Your task to perform on an android device: change your default location settings in chrome Image 0: 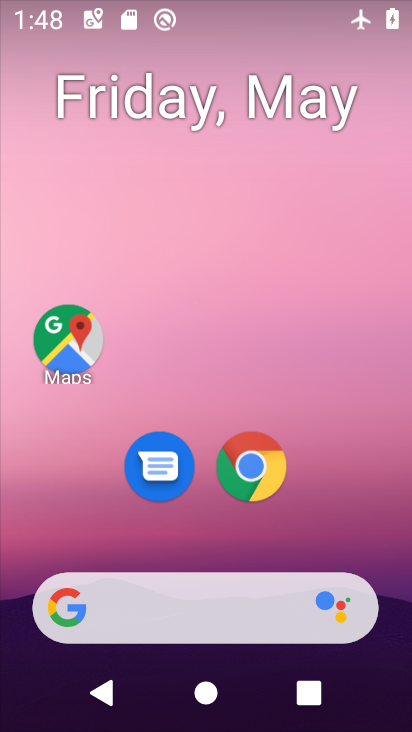
Step 0: drag from (345, 528) to (390, 0)
Your task to perform on an android device: change your default location settings in chrome Image 1: 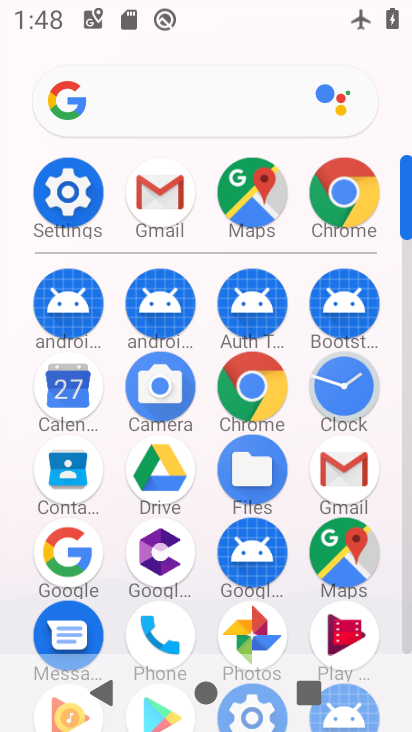
Step 1: click (340, 196)
Your task to perform on an android device: change your default location settings in chrome Image 2: 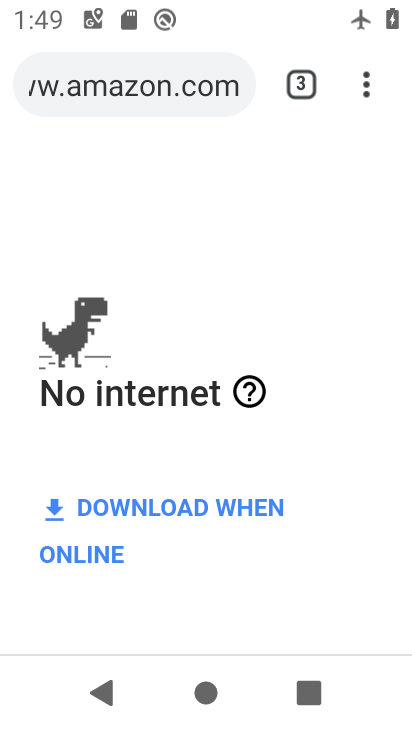
Step 2: drag from (366, 81) to (189, 511)
Your task to perform on an android device: change your default location settings in chrome Image 3: 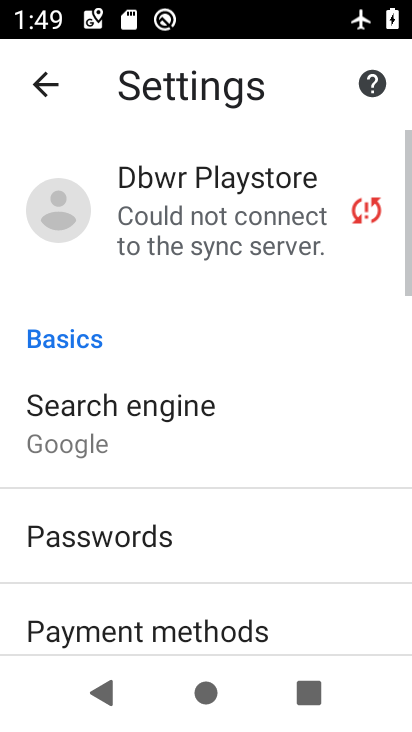
Step 3: drag from (171, 585) to (173, 211)
Your task to perform on an android device: change your default location settings in chrome Image 4: 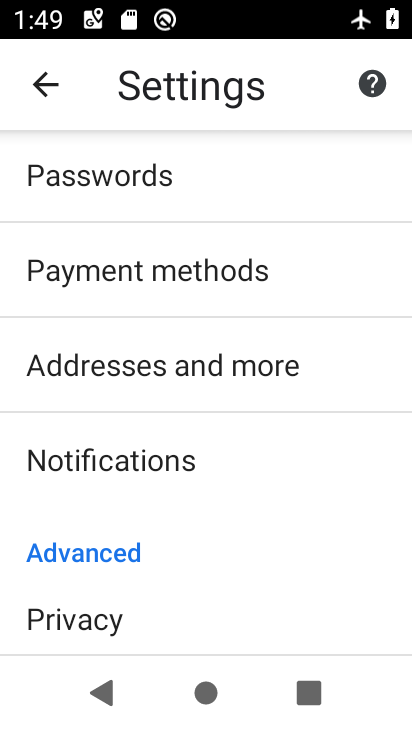
Step 4: drag from (188, 599) to (200, 183)
Your task to perform on an android device: change your default location settings in chrome Image 5: 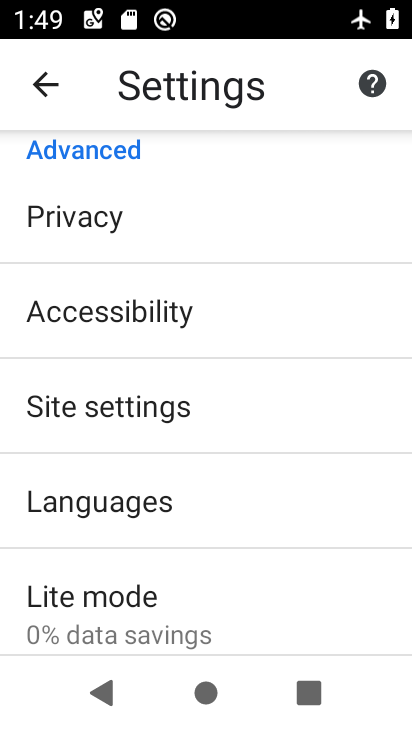
Step 5: drag from (206, 593) to (241, 155)
Your task to perform on an android device: change your default location settings in chrome Image 6: 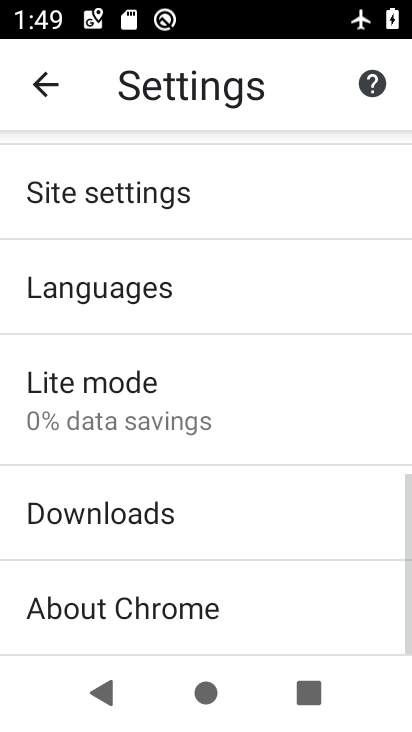
Step 6: drag from (184, 540) to (212, 107)
Your task to perform on an android device: change your default location settings in chrome Image 7: 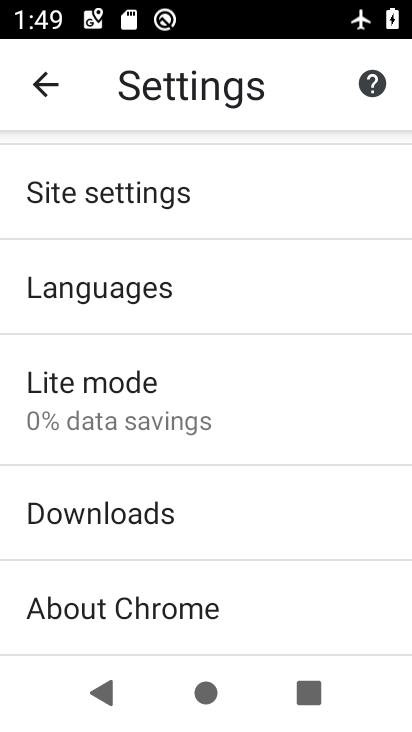
Step 7: drag from (187, 273) to (210, 611)
Your task to perform on an android device: change your default location settings in chrome Image 8: 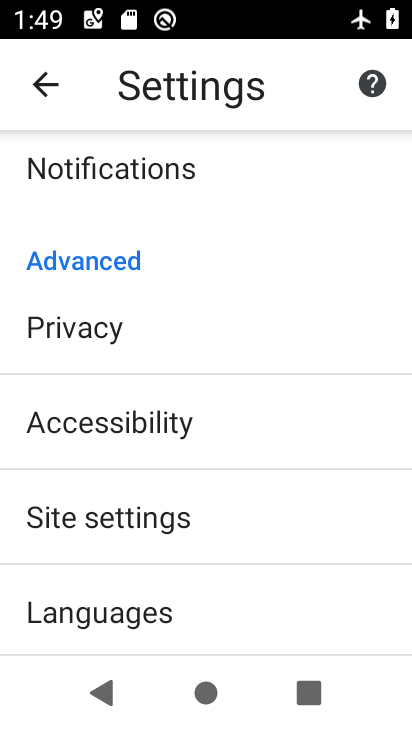
Step 8: drag from (224, 208) to (234, 571)
Your task to perform on an android device: change your default location settings in chrome Image 9: 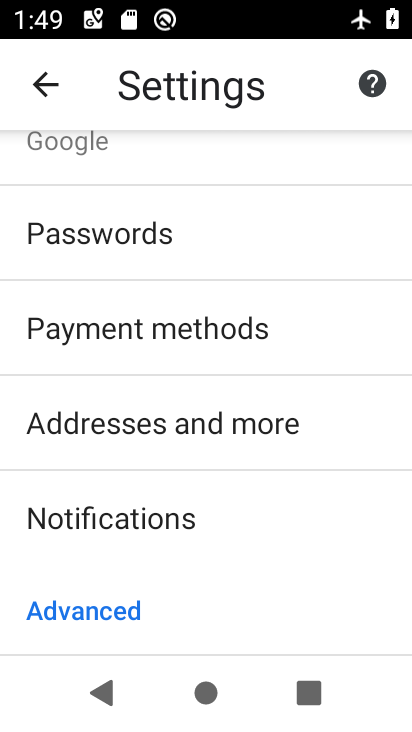
Step 9: drag from (285, 214) to (280, 622)
Your task to perform on an android device: change your default location settings in chrome Image 10: 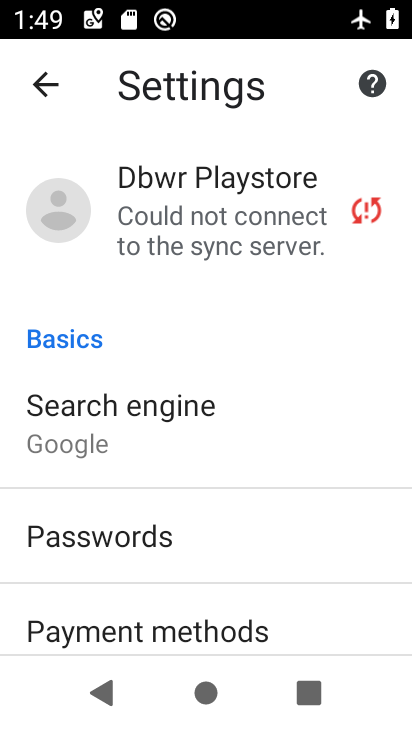
Step 10: drag from (275, 626) to (238, 271)
Your task to perform on an android device: change your default location settings in chrome Image 11: 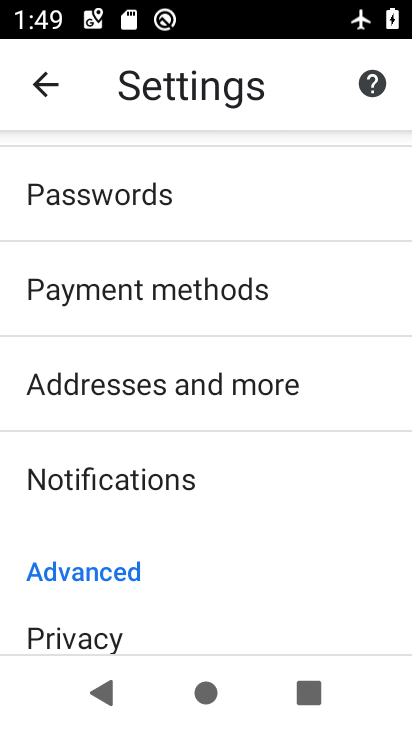
Step 11: drag from (197, 561) to (245, 197)
Your task to perform on an android device: change your default location settings in chrome Image 12: 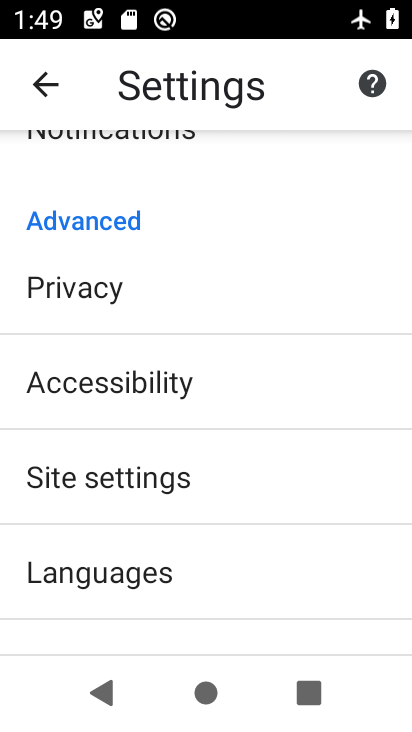
Step 12: drag from (201, 552) to (219, 118)
Your task to perform on an android device: change your default location settings in chrome Image 13: 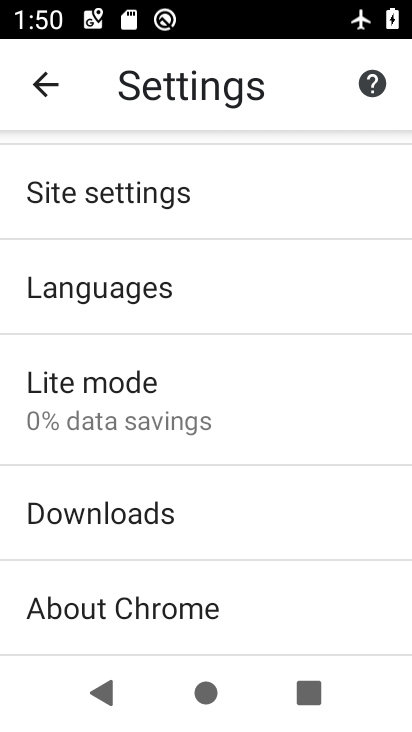
Step 13: drag from (239, 604) to (252, 175)
Your task to perform on an android device: change your default location settings in chrome Image 14: 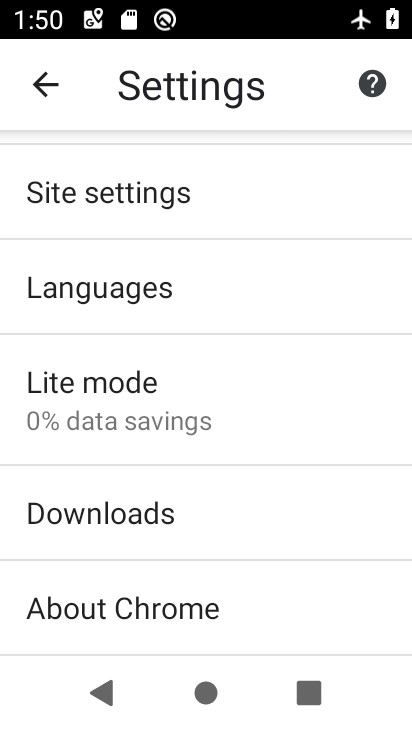
Step 14: drag from (197, 253) to (203, 618)
Your task to perform on an android device: change your default location settings in chrome Image 15: 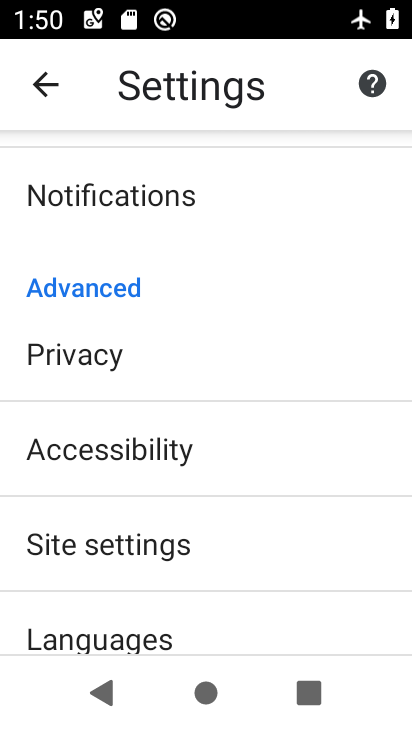
Step 15: drag from (179, 288) to (144, 623)
Your task to perform on an android device: change your default location settings in chrome Image 16: 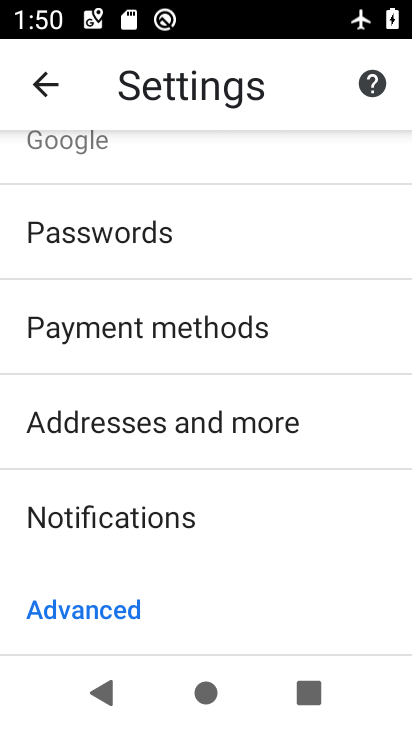
Step 16: drag from (183, 206) to (169, 704)
Your task to perform on an android device: change your default location settings in chrome Image 17: 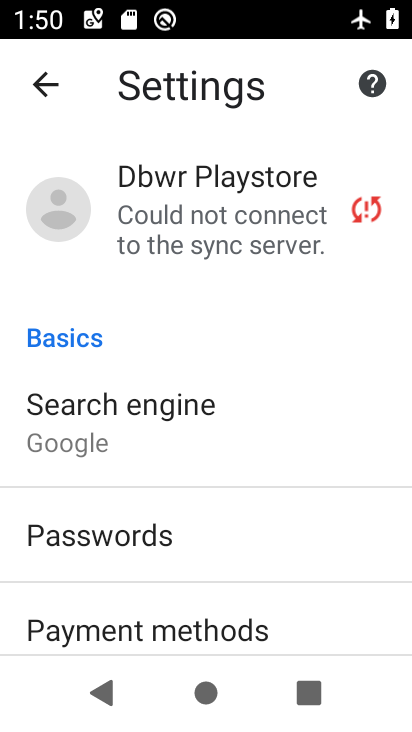
Step 17: drag from (185, 570) to (144, 217)
Your task to perform on an android device: change your default location settings in chrome Image 18: 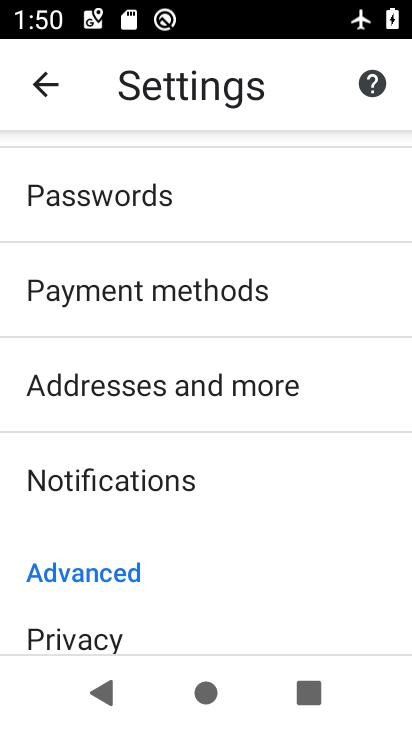
Step 18: drag from (194, 622) to (248, 170)
Your task to perform on an android device: change your default location settings in chrome Image 19: 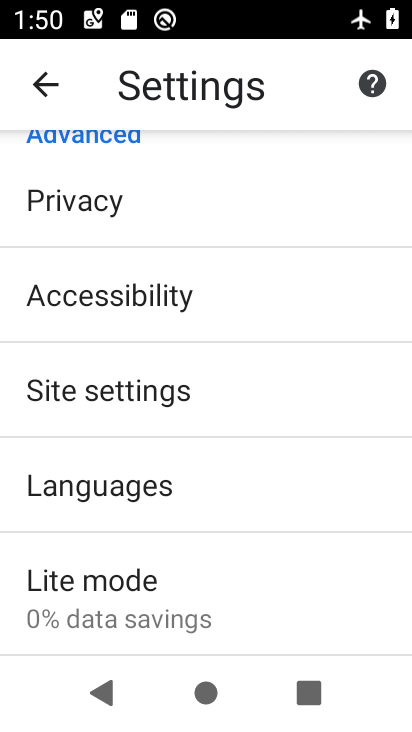
Step 19: drag from (217, 595) to (258, 173)
Your task to perform on an android device: change your default location settings in chrome Image 20: 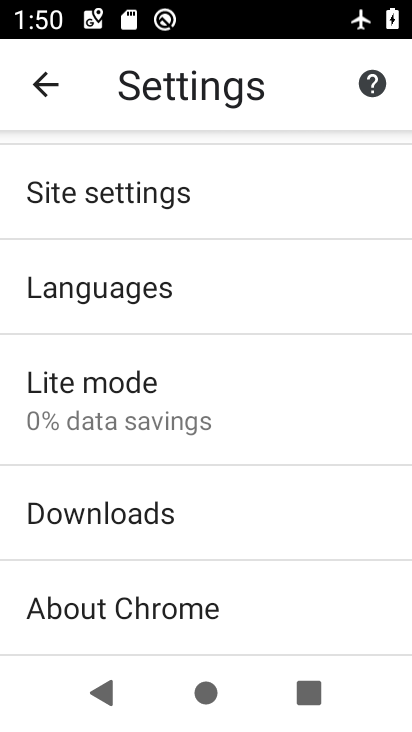
Step 20: drag from (190, 306) to (197, 585)
Your task to perform on an android device: change your default location settings in chrome Image 21: 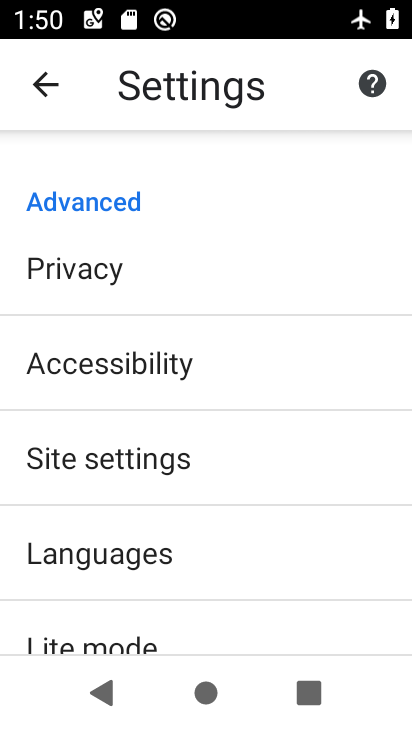
Step 21: drag from (198, 578) to (227, 234)
Your task to perform on an android device: change your default location settings in chrome Image 22: 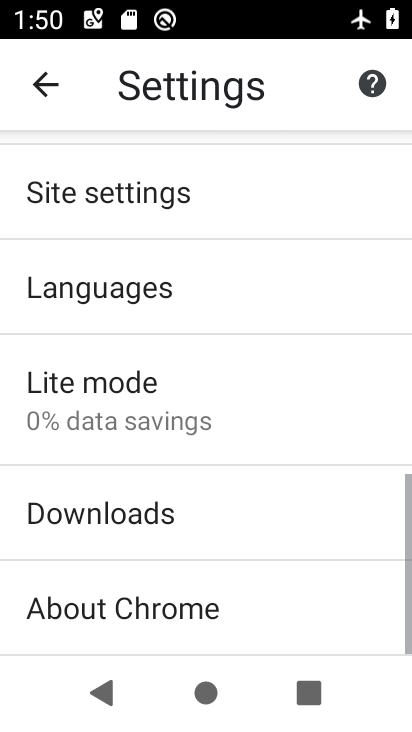
Step 22: drag from (216, 600) to (255, 146)
Your task to perform on an android device: change your default location settings in chrome Image 23: 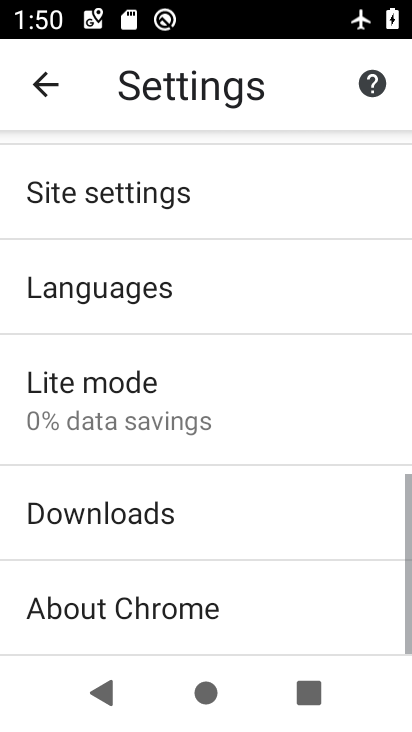
Step 23: drag from (265, 225) to (292, 597)
Your task to perform on an android device: change your default location settings in chrome Image 24: 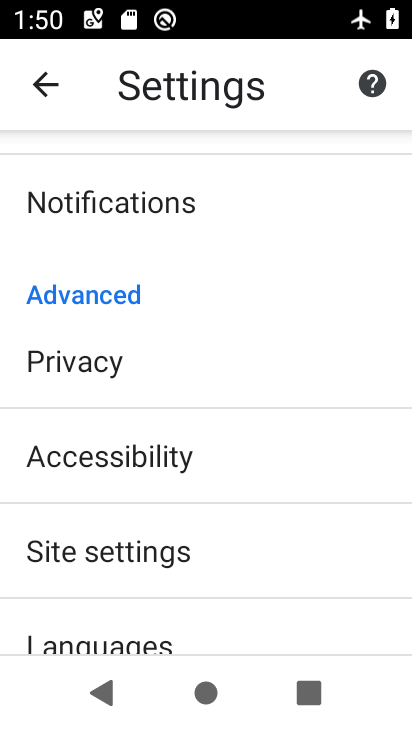
Step 24: drag from (294, 223) to (291, 643)
Your task to perform on an android device: change your default location settings in chrome Image 25: 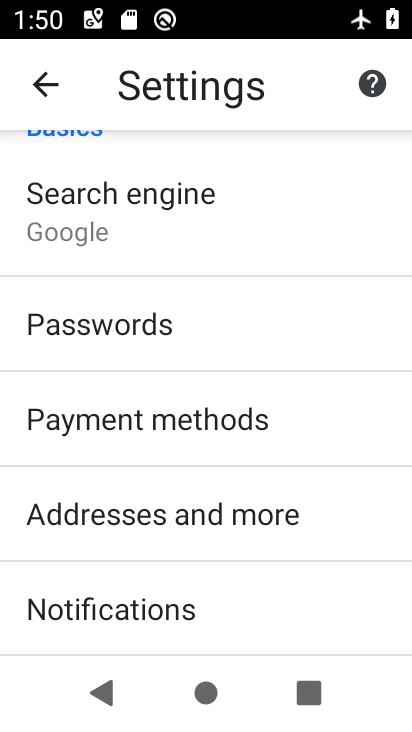
Step 25: drag from (276, 108) to (269, 594)
Your task to perform on an android device: change your default location settings in chrome Image 26: 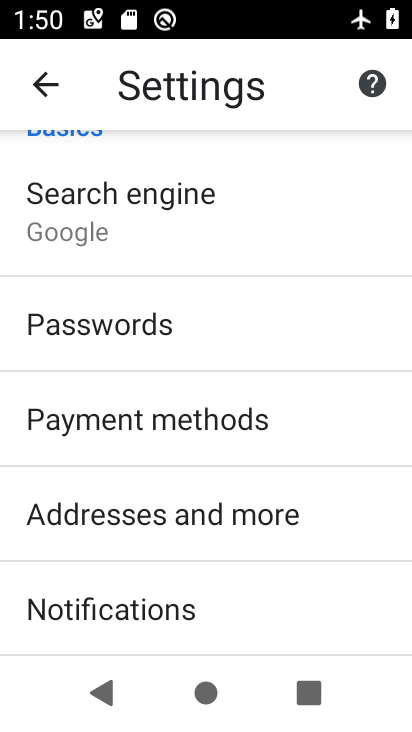
Step 26: drag from (273, 327) to (297, 630)
Your task to perform on an android device: change your default location settings in chrome Image 27: 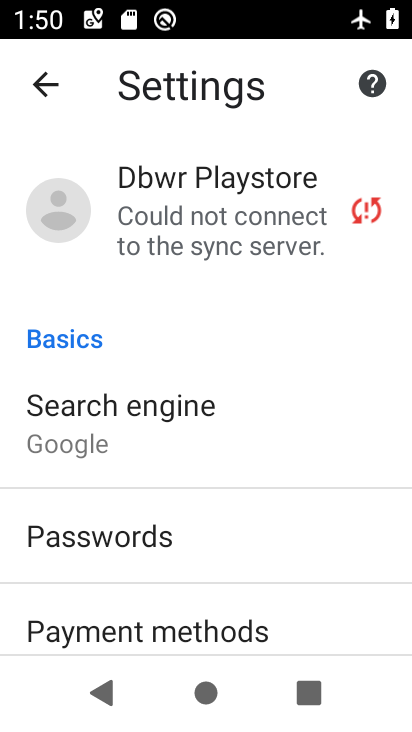
Step 27: drag from (307, 585) to (297, 135)
Your task to perform on an android device: change your default location settings in chrome Image 28: 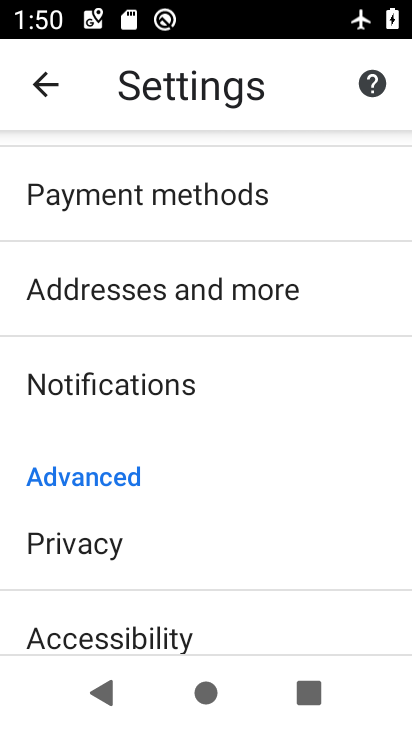
Step 28: drag from (223, 543) to (274, 138)
Your task to perform on an android device: change your default location settings in chrome Image 29: 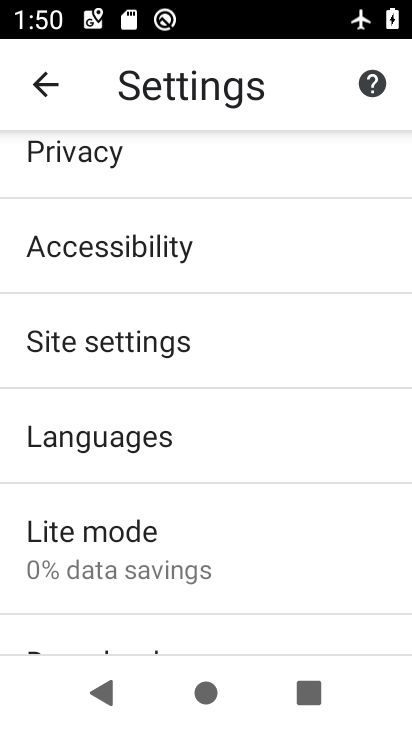
Step 29: drag from (248, 560) to (261, 97)
Your task to perform on an android device: change your default location settings in chrome Image 30: 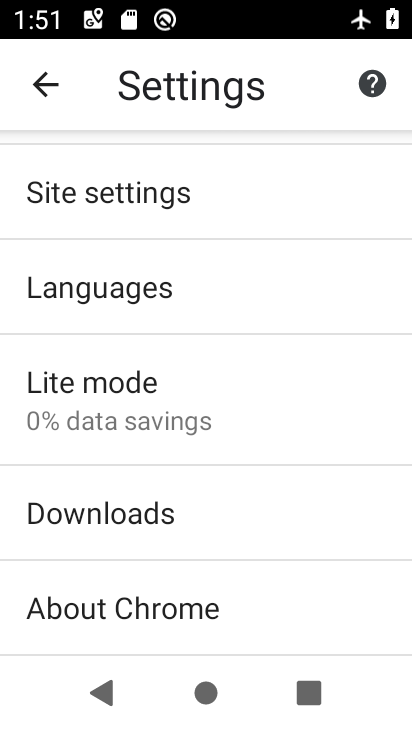
Step 30: drag from (217, 647) to (287, 95)
Your task to perform on an android device: change your default location settings in chrome Image 31: 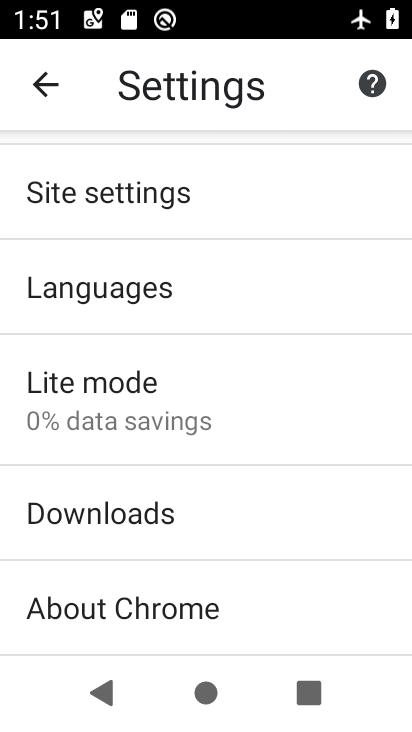
Step 31: drag from (183, 551) to (179, 150)
Your task to perform on an android device: change your default location settings in chrome Image 32: 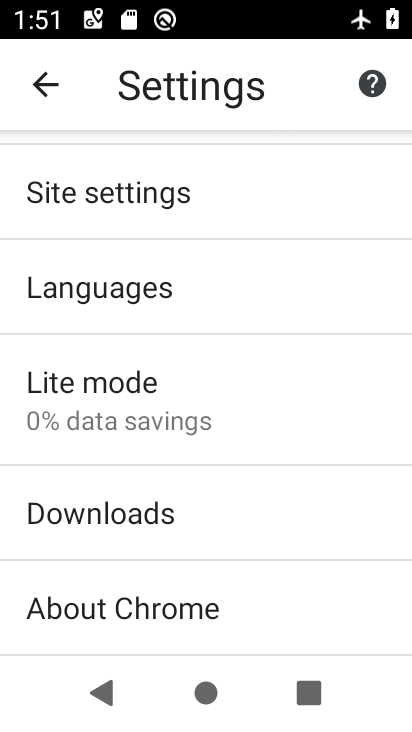
Step 32: drag from (247, 609) to (245, 212)
Your task to perform on an android device: change your default location settings in chrome Image 33: 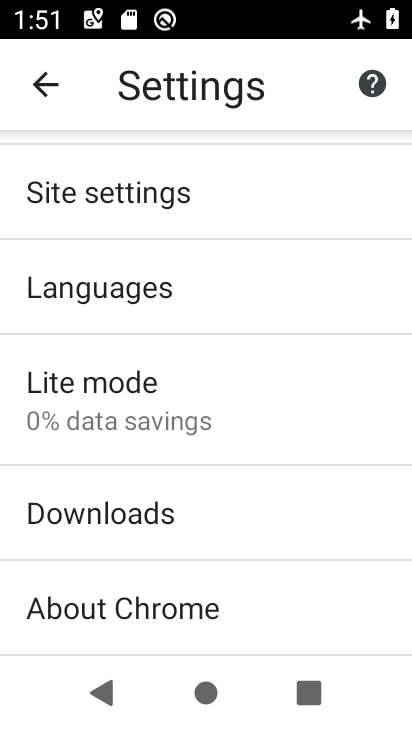
Step 33: drag from (192, 282) to (211, 620)
Your task to perform on an android device: change your default location settings in chrome Image 34: 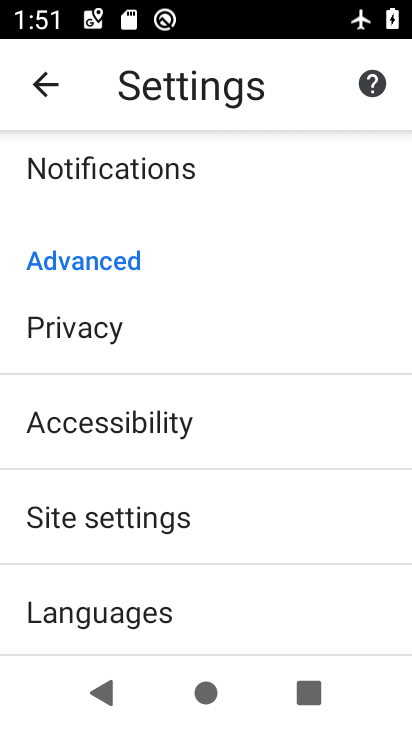
Step 34: drag from (223, 288) to (226, 669)
Your task to perform on an android device: change your default location settings in chrome Image 35: 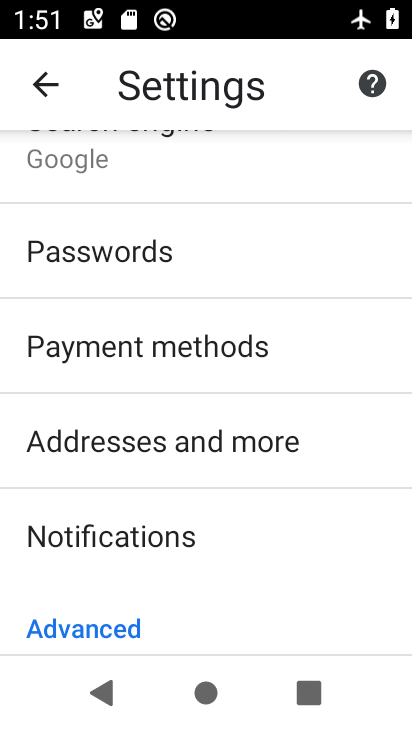
Step 35: drag from (264, 343) to (272, 611)
Your task to perform on an android device: change your default location settings in chrome Image 36: 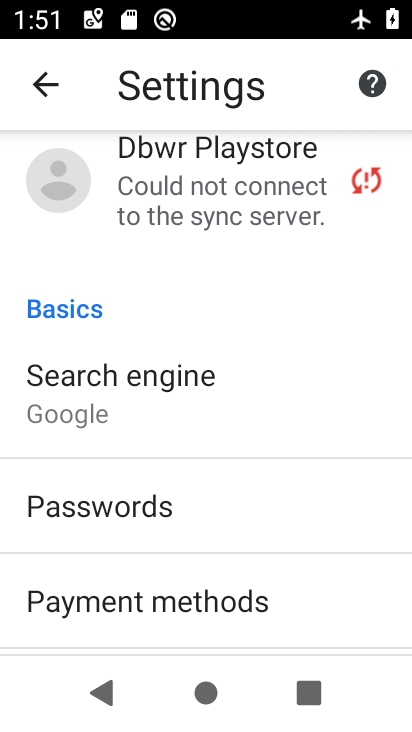
Step 36: drag from (276, 597) to (260, 253)
Your task to perform on an android device: change your default location settings in chrome Image 37: 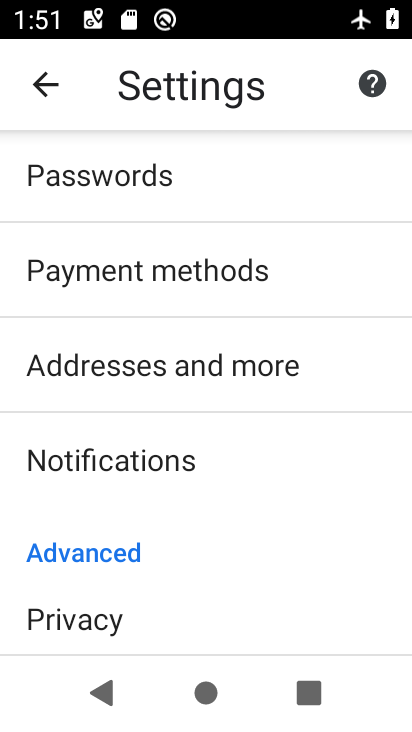
Step 37: drag from (293, 582) to (297, 222)
Your task to perform on an android device: change your default location settings in chrome Image 38: 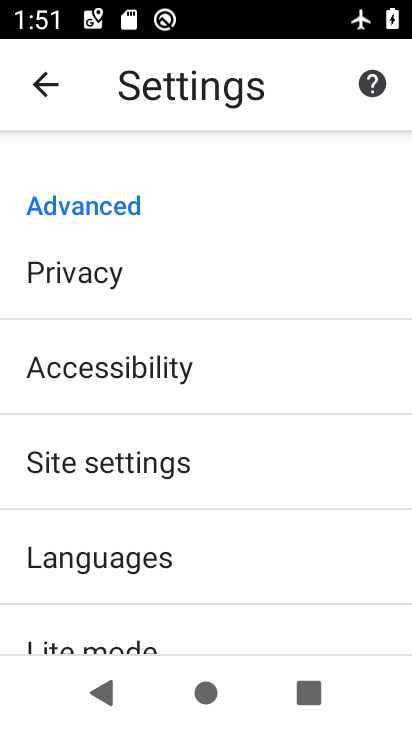
Step 38: drag from (296, 547) to (277, 207)
Your task to perform on an android device: change your default location settings in chrome Image 39: 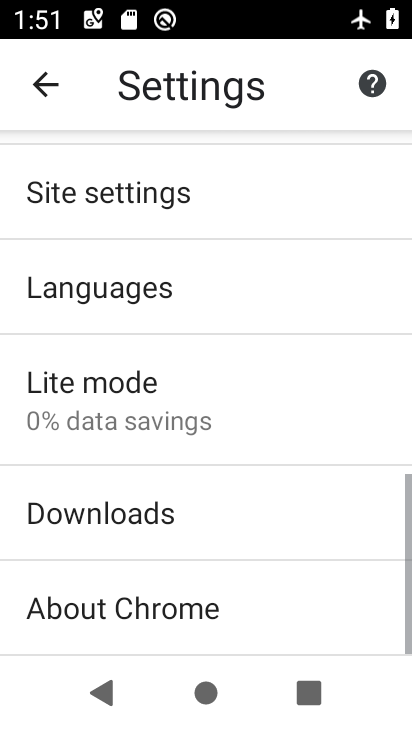
Step 39: drag from (315, 595) to (314, 228)
Your task to perform on an android device: change your default location settings in chrome Image 40: 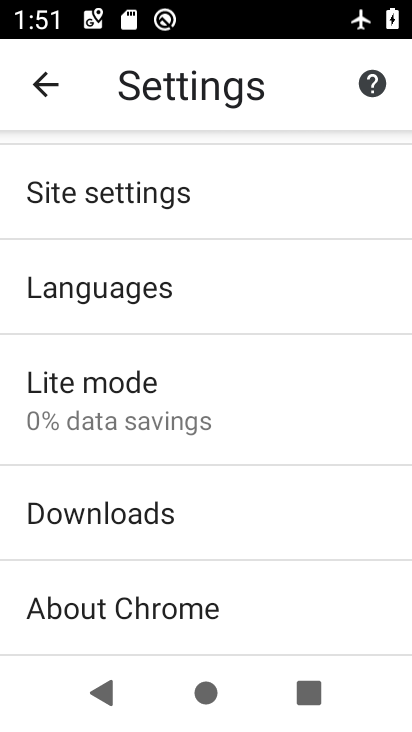
Step 40: drag from (274, 607) to (310, 125)
Your task to perform on an android device: change your default location settings in chrome Image 41: 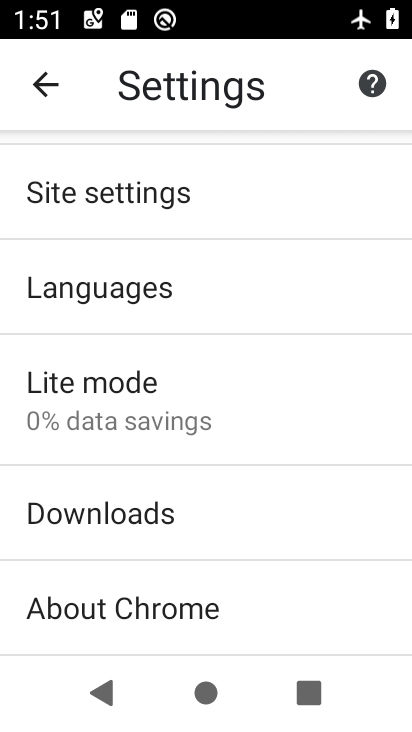
Step 41: drag from (310, 146) to (312, 507)
Your task to perform on an android device: change your default location settings in chrome Image 42: 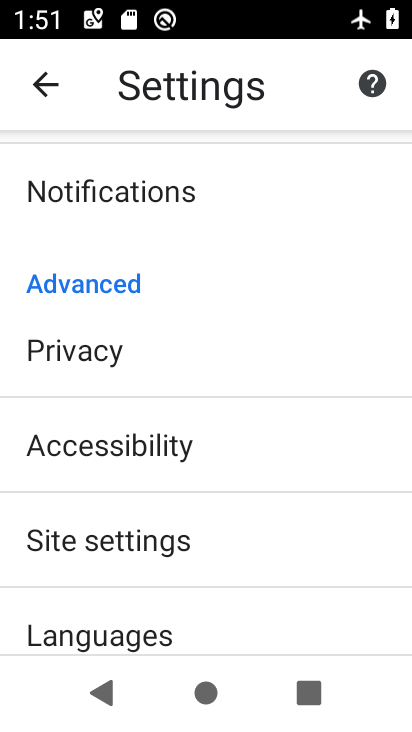
Step 42: drag from (255, 576) to (246, 105)
Your task to perform on an android device: change your default location settings in chrome Image 43: 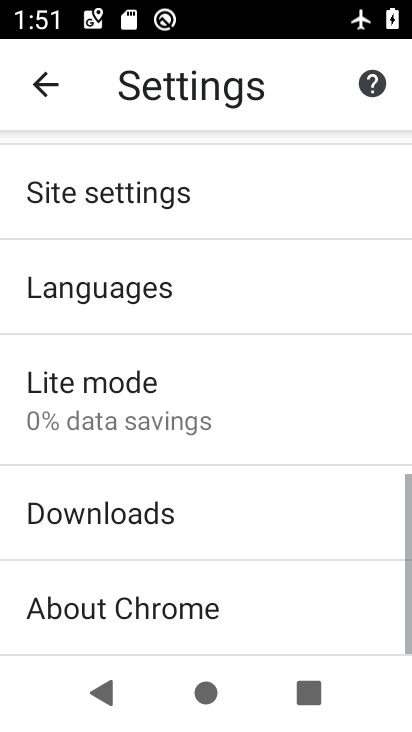
Step 43: click (170, 199)
Your task to perform on an android device: change your default location settings in chrome Image 44: 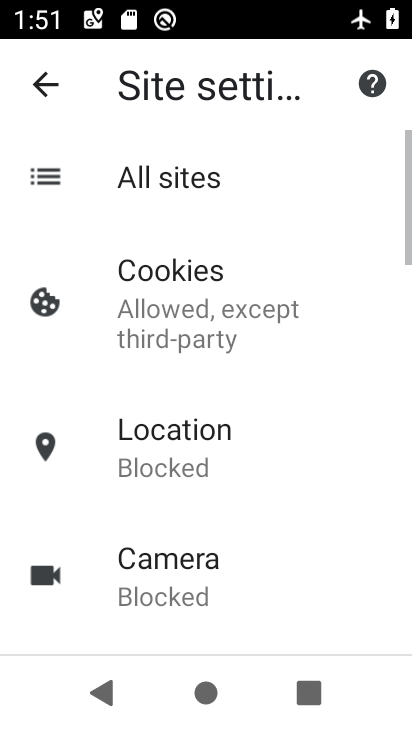
Step 44: click (219, 454)
Your task to perform on an android device: change your default location settings in chrome Image 45: 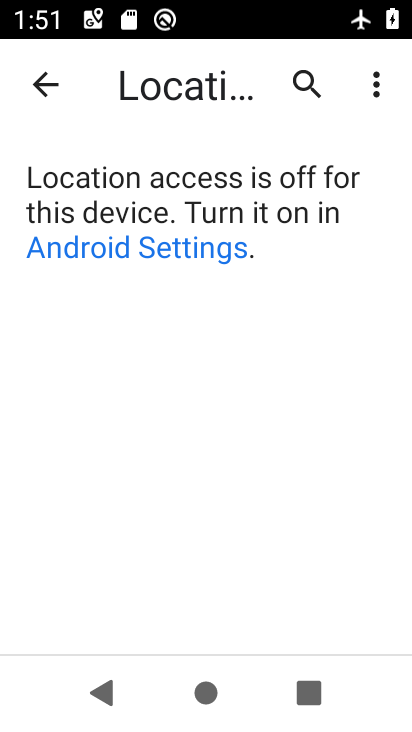
Step 45: click (176, 256)
Your task to perform on an android device: change your default location settings in chrome Image 46: 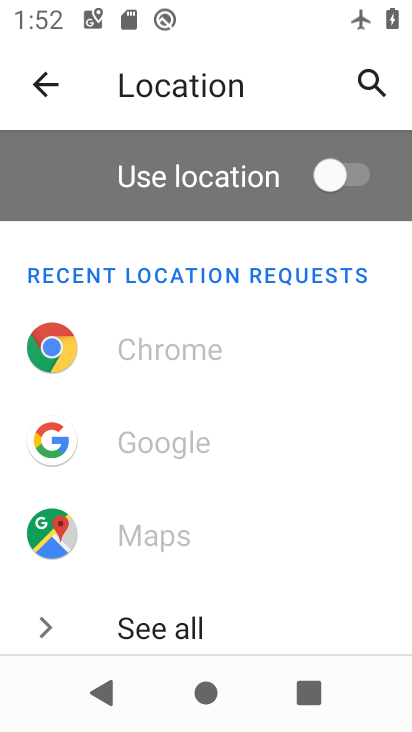
Step 46: drag from (213, 596) to (212, 95)
Your task to perform on an android device: change your default location settings in chrome Image 47: 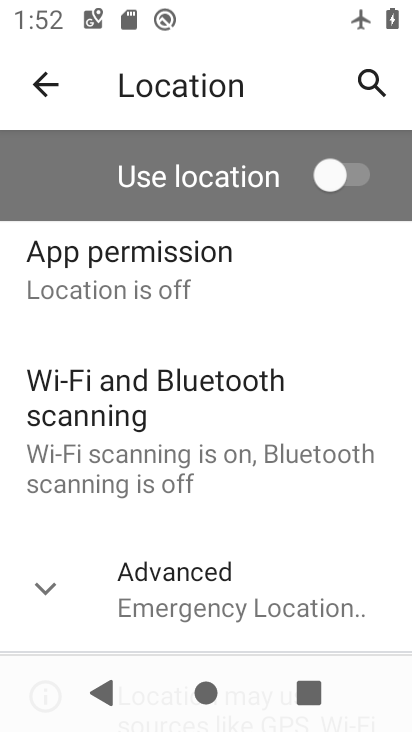
Step 47: drag from (263, 526) to (264, 235)
Your task to perform on an android device: change your default location settings in chrome Image 48: 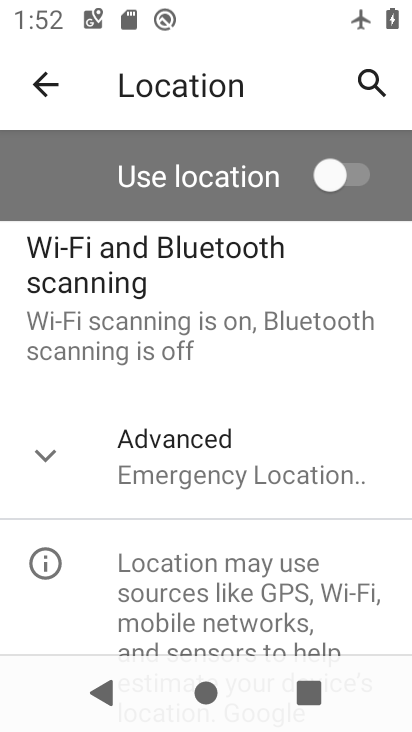
Step 48: drag from (209, 582) to (211, 247)
Your task to perform on an android device: change your default location settings in chrome Image 49: 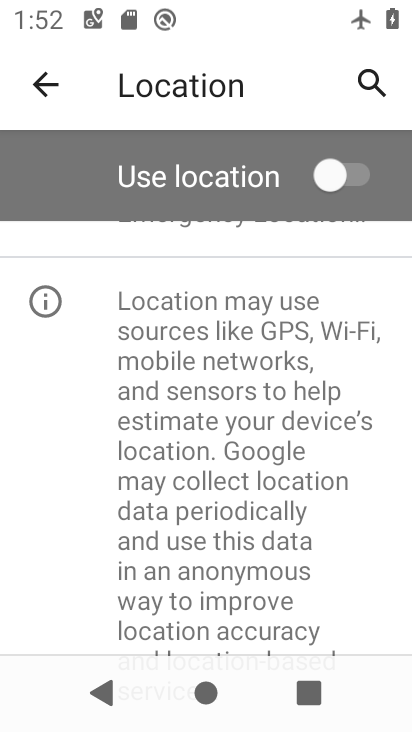
Step 49: drag from (211, 249) to (242, 643)
Your task to perform on an android device: change your default location settings in chrome Image 50: 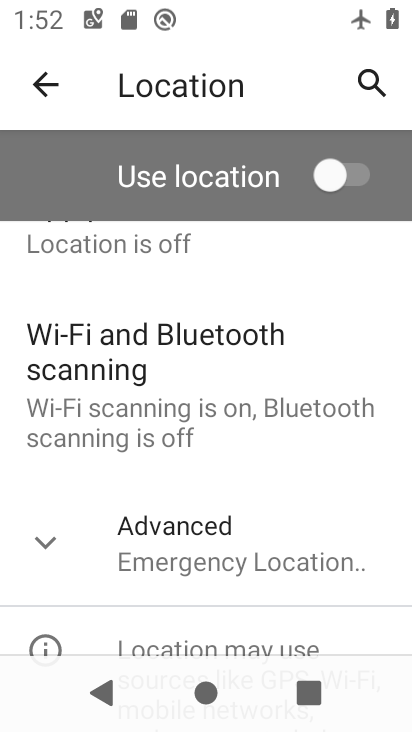
Step 50: drag from (256, 194) to (250, 640)
Your task to perform on an android device: change your default location settings in chrome Image 51: 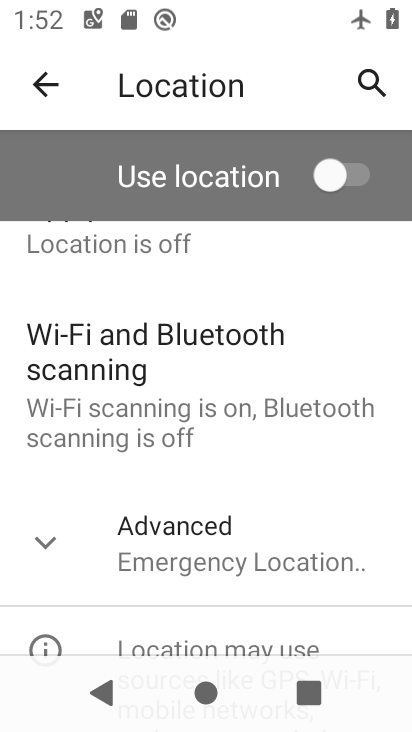
Step 51: drag from (239, 256) to (249, 622)
Your task to perform on an android device: change your default location settings in chrome Image 52: 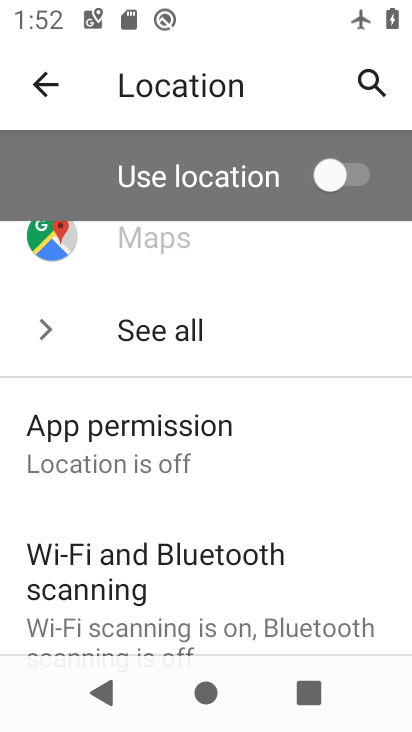
Step 52: drag from (231, 374) to (249, 641)
Your task to perform on an android device: change your default location settings in chrome Image 53: 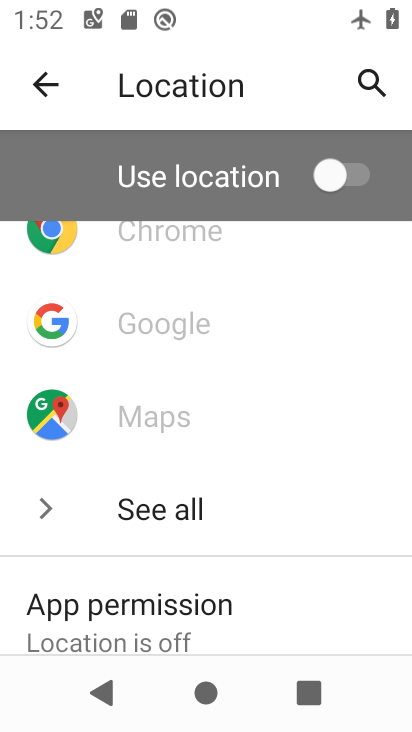
Step 53: drag from (184, 316) to (197, 634)
Your task to perform on an android device: change your default location settings in chrome Image 54: 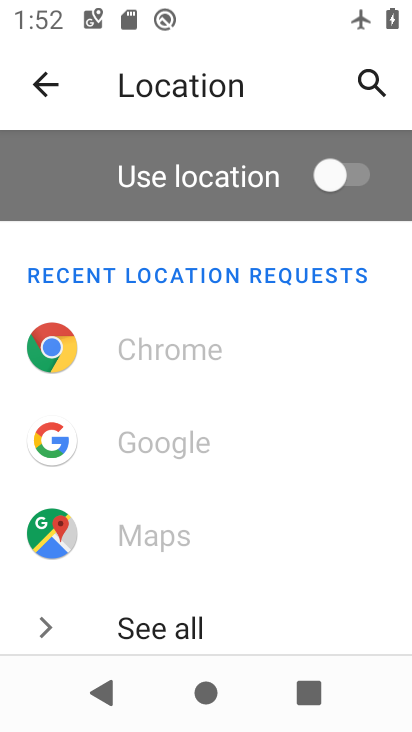
Step 54: drag from (181, 572) to (161, 283)
Your task to perform on an android device: change your default location settings in chrome Image 55: 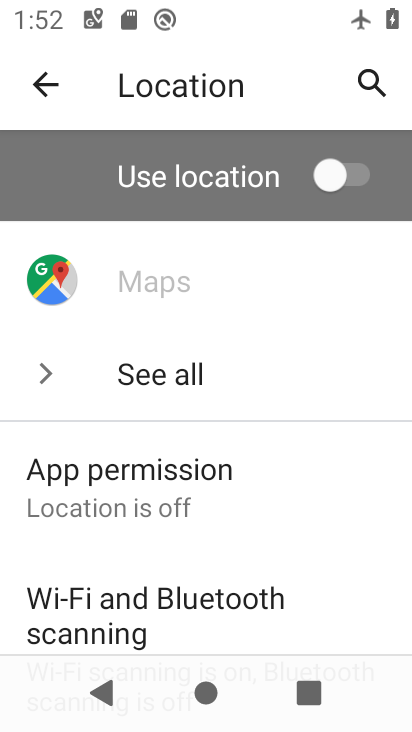
Step 55: drag from (162, 596) to (160, 287)
Your task to perform on an android device: change your default location settings in chrome Image 56: 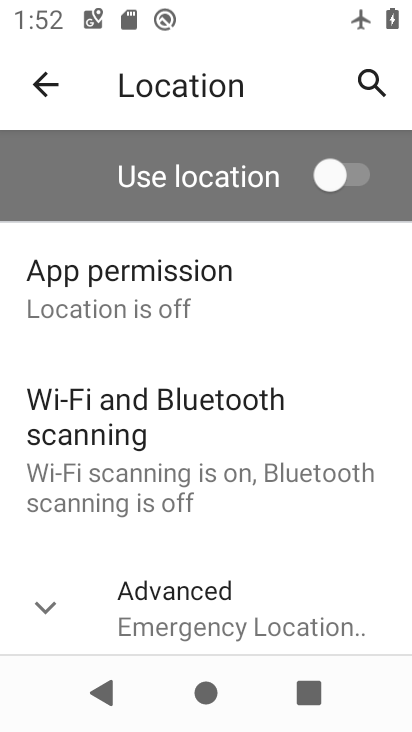
Step 56: drag from (227, 565) to (215, 306)
Your task to perform on an android device: change your default location settings in chrome Image 57: 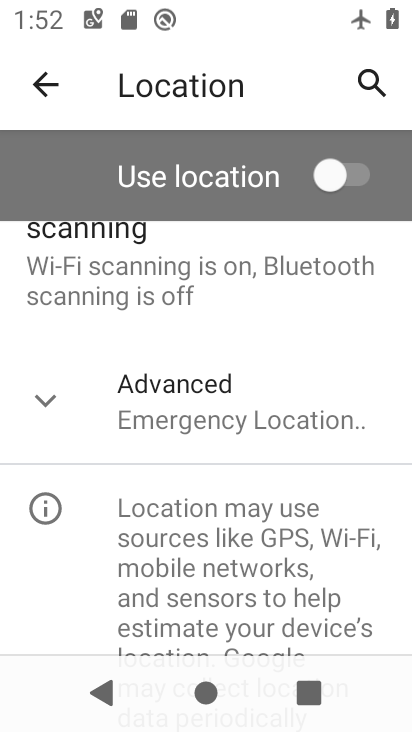
Step 57: click (238, 424)
Your task to perform on an android device: change your default location settings in chrome Image 58: 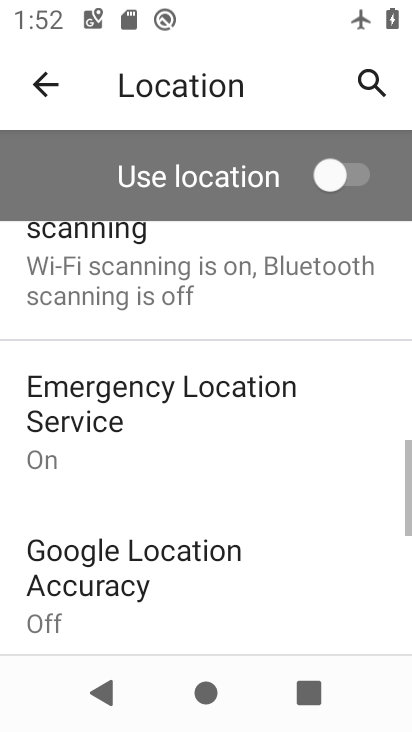
Step 58: task complete